Your task to perform on an android device: empty trash in the gmail app Image 0: 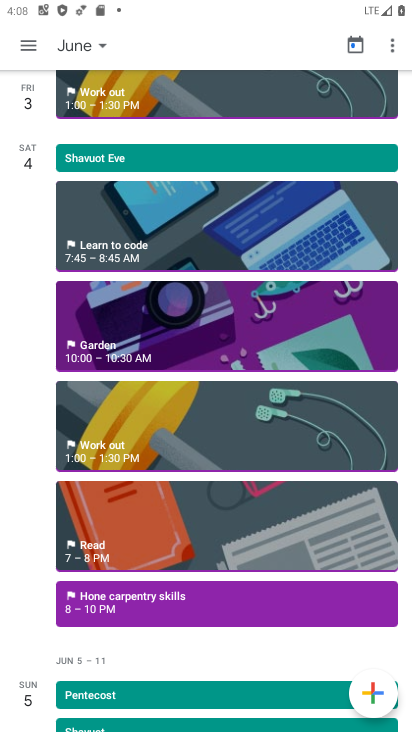
Step 0: press home button
Your task to perform on an android device: empty trash in the gmail app Image 1: 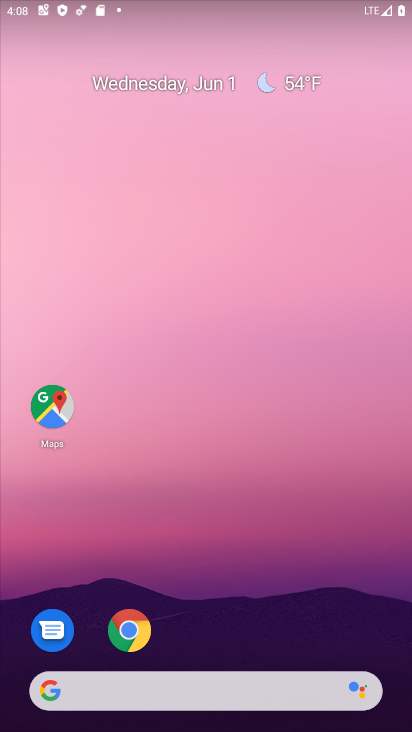
Step 1: drag from (259, 392) to (178, 8)
Your task to perform on an android device: empty trash in the gmail app Image 2: 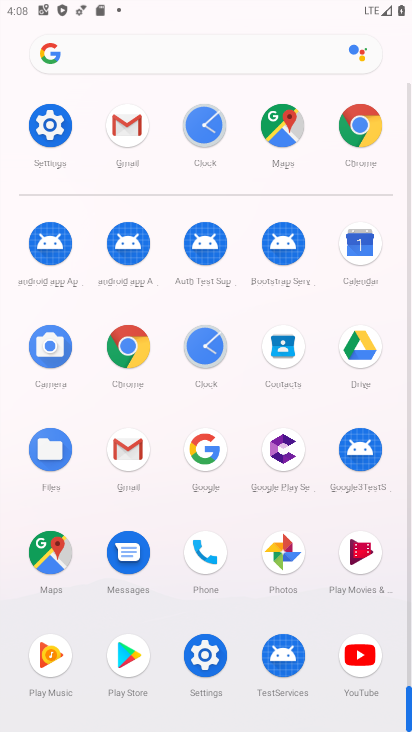
Step 2: drag from (21, 500) to (25, 135)
Your task to perform on an android device: empty trash in the gmail app Image 3: 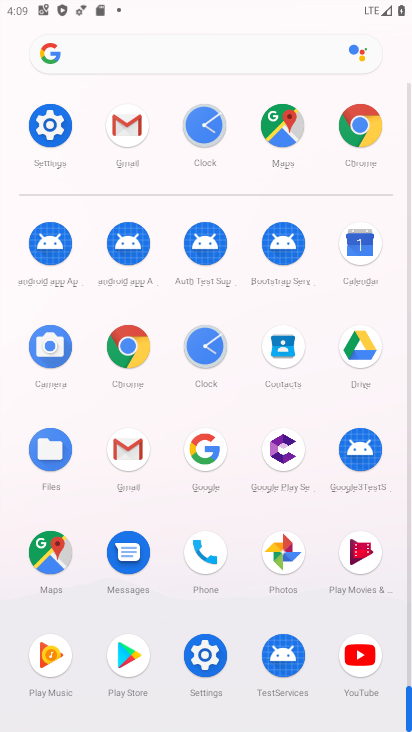
Step 3: click (127, 447)
Your task to perform on an android device: empty trash in the gmail app Image 4: 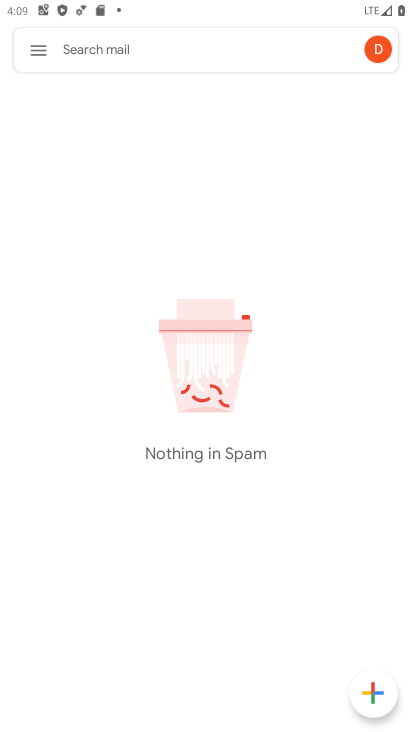
Step 4: click (49, 48)
Your task to perform on an android device: empty trash in the gmail app Image 5: 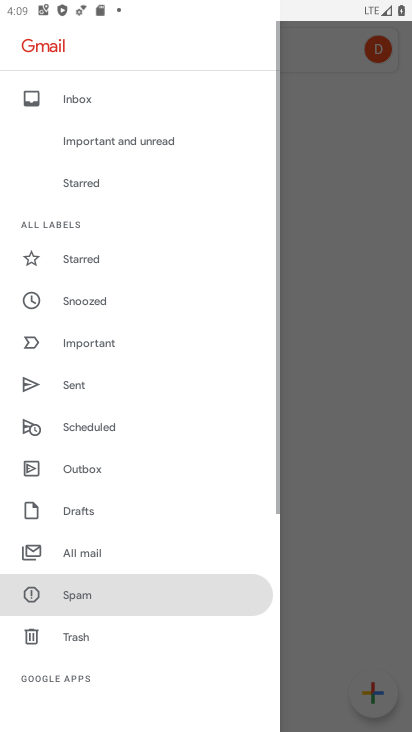
Step 5: drag from (203, 150) to (215, 569)
Your task to perform on an android device: empty trash in the gmail app Image 6: 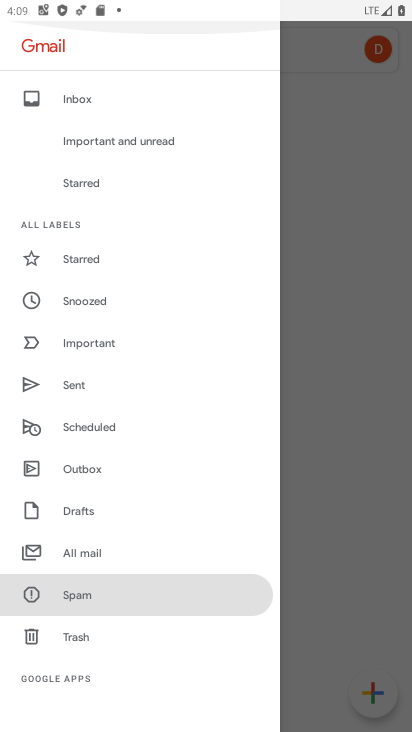
Step 6: drag from (183, 584) to (182, 159)
Your task to perform on an android device: empty trash in the gmail app Image 7: 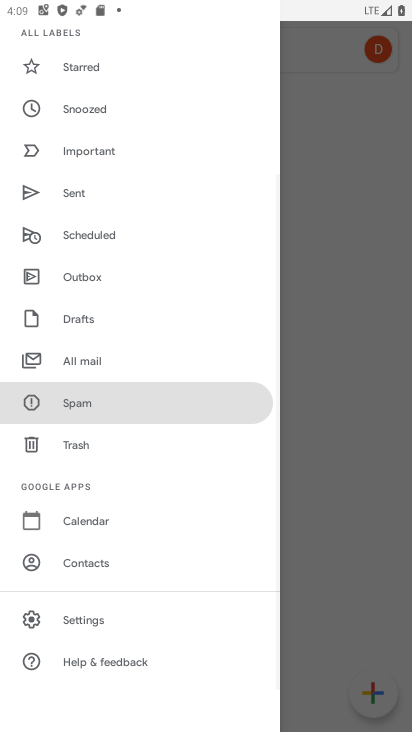
Step 7: click (92, 438)
Your task to perform on an android device: empty trash in the gmail app Image 8: 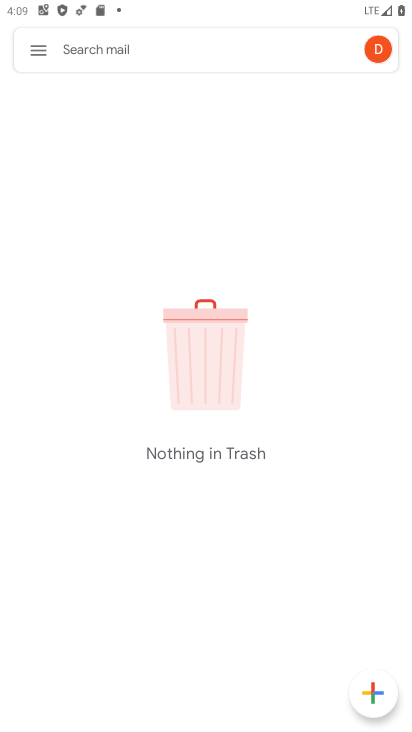
Step 8: task complete